Your task to perform on an android device: What is the recent news? Image 0: 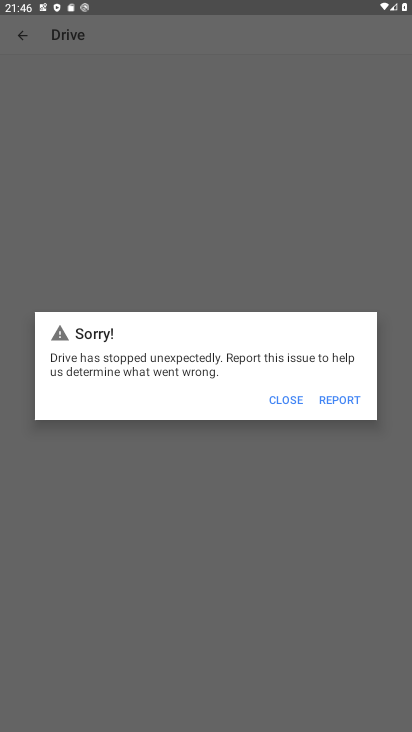
Step 0: drag from (205, 133) to (234, 383)
Your task to perform on an android device: What is the recent news? Image 1: 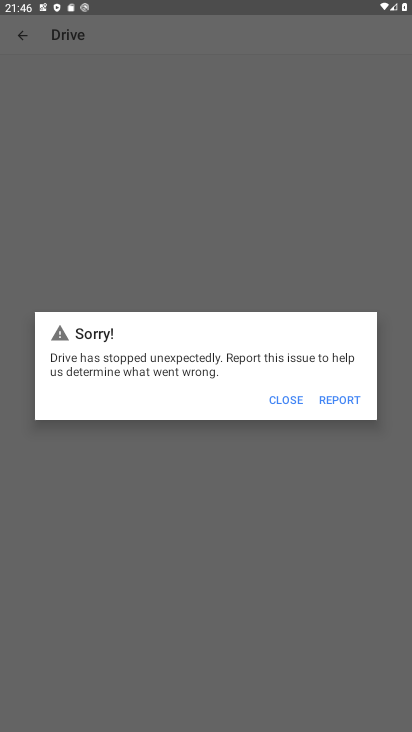
Step 1: press home button
Your task to perform on an android device: What is the recent news? Image 2: 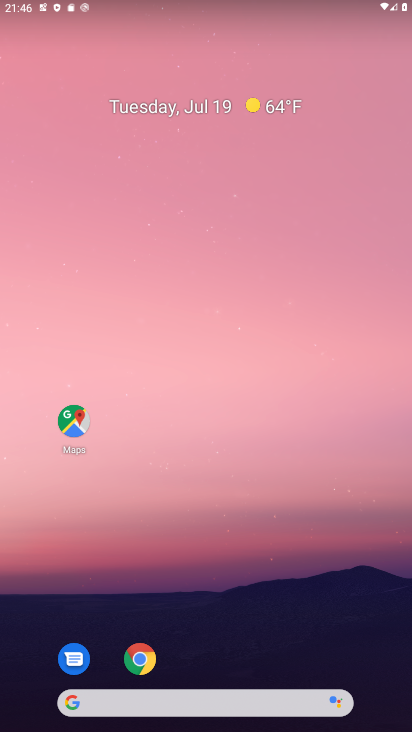
Step 2: click (113, 701)
Your task to perform on an android device: What is the recent news? Image 3: 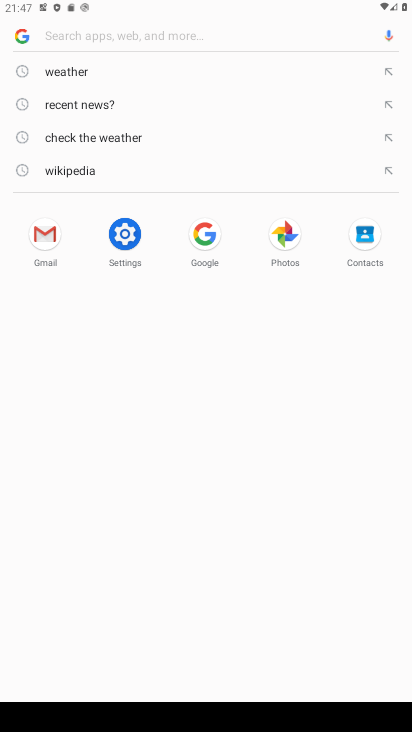
Step 3: click (25, 47)
Your task to perform on an android device: What is the recent news? Image 4: 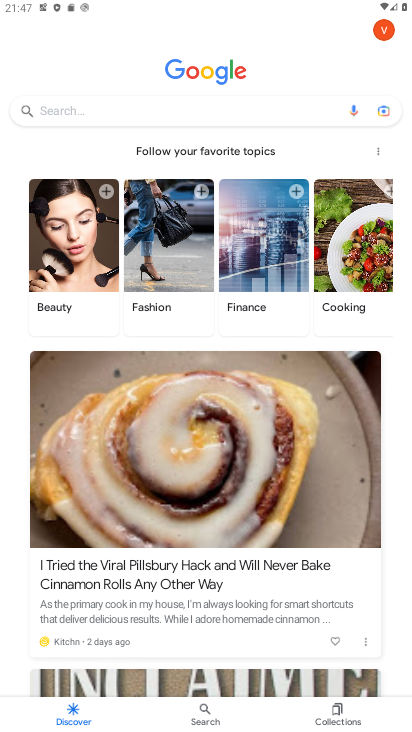
Step 4: task complete